Your task to perform on an android device: Go to notification settings Image 0: 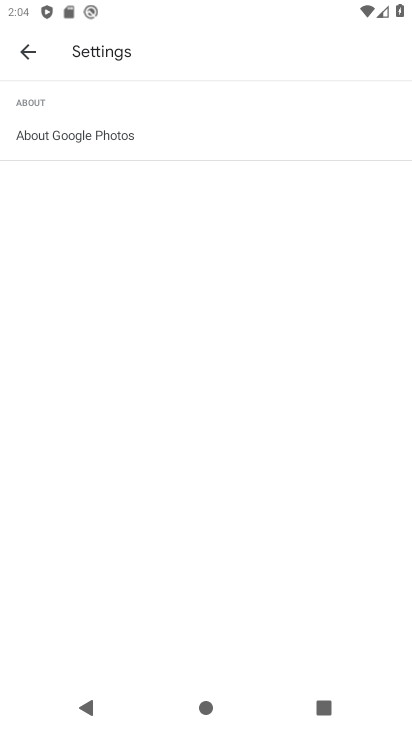
Step 0: press back button
Your task to perform on an android device: Go to notification settings Image 1: 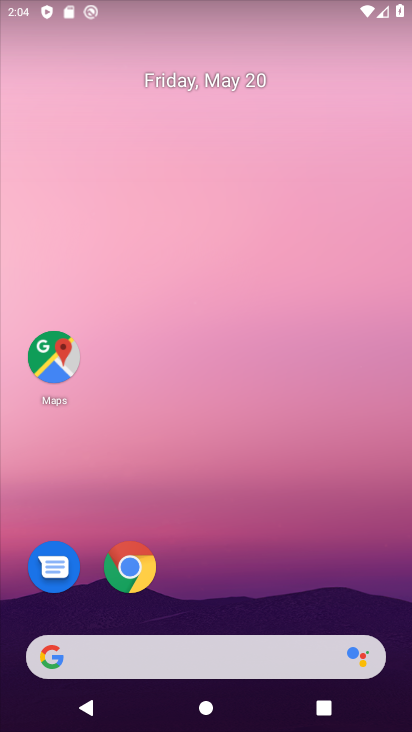
Step 1: drag from (245, 546) to (190, 52)
Your task to perform on an android device: Go to notification settings Image 2: 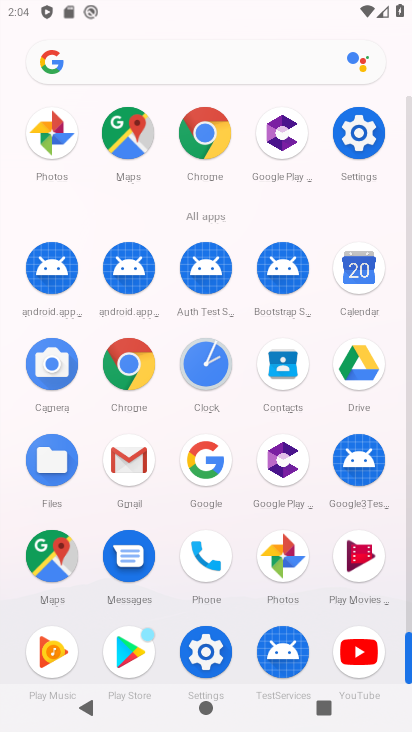
Step 2: drag from (0, 550) to (14, 358)
Your task to perform on an android device: Go to notification settings Image 3: 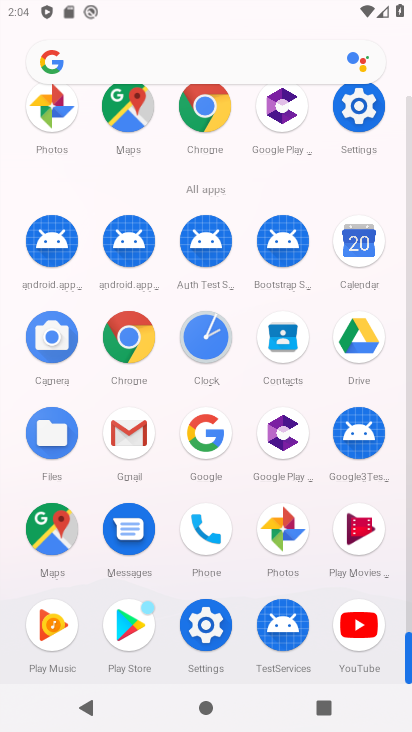
Step 3: click (207, 621)
Your task to perform on an android device: Go to notification settings Image 4: 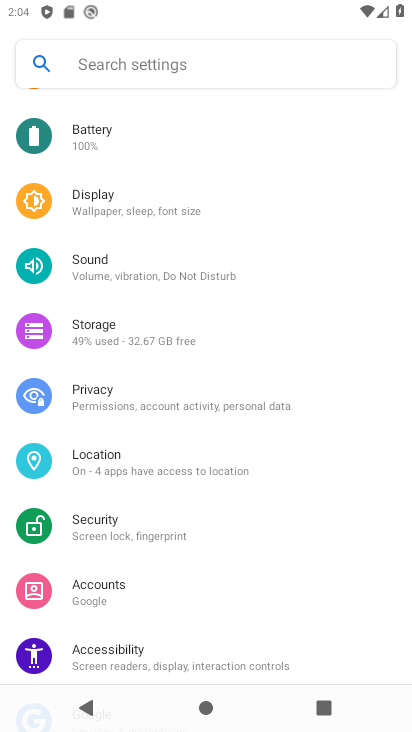
Step 4: drag from (222, 149) to (229, 544)
Your task to perform on an android device: Go to notification settings Image 5: 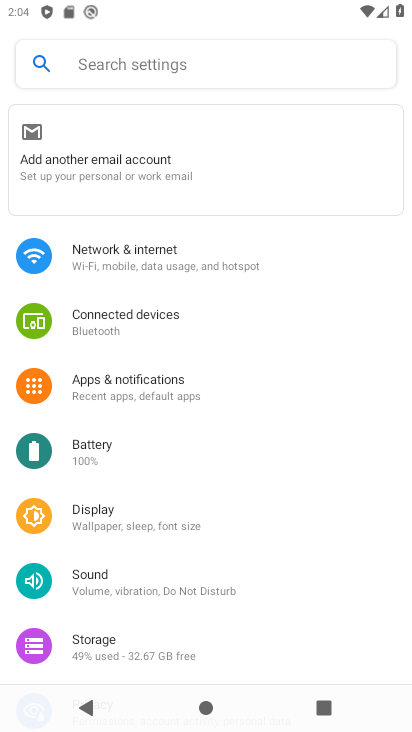
Step 5: click (149, 389)
Your task to perform on an android device: Go to notification settings Image 6: 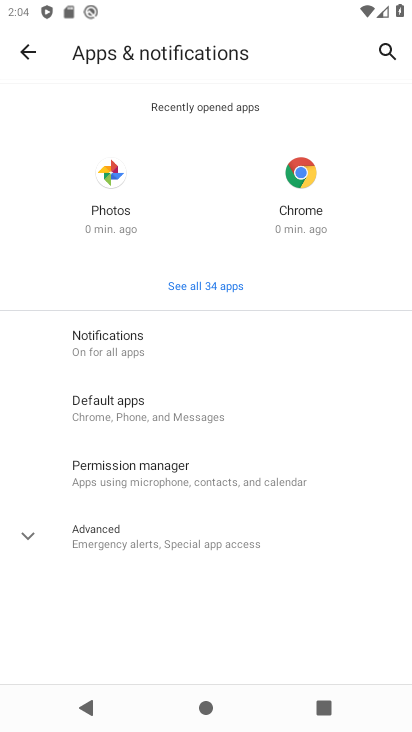
Step 6: click (34, 534)
Your task to perform on an android device: Go to notification settings Image 7: 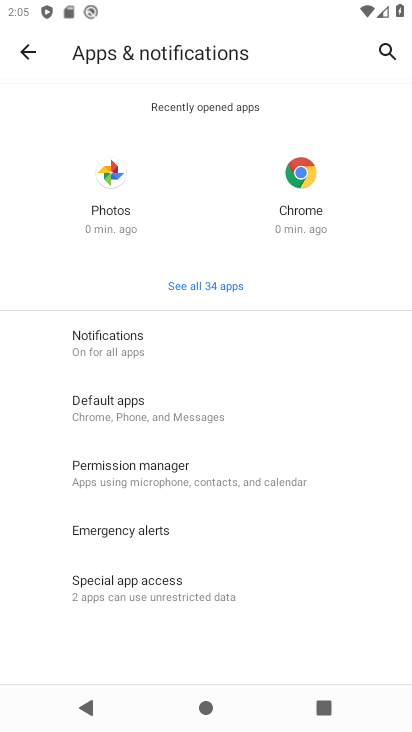
Step 7: click (142, 332)
Your task to perform on an android device: Go to notification settings Image 8: 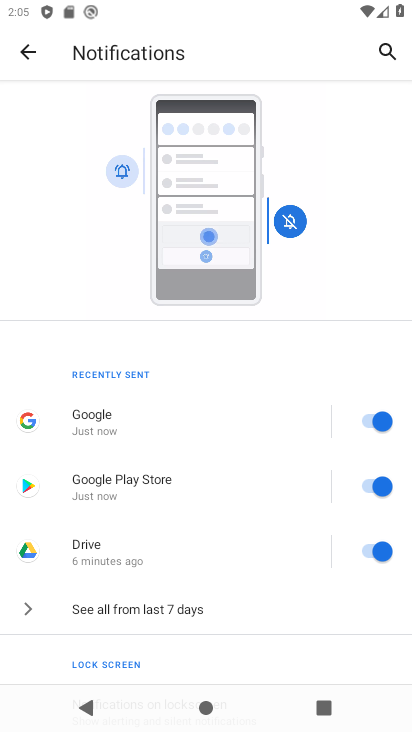
Step 8: drag from (165, 551) to (199, 115)
Your task to perform on an android device: Go to notification settings Image 9: 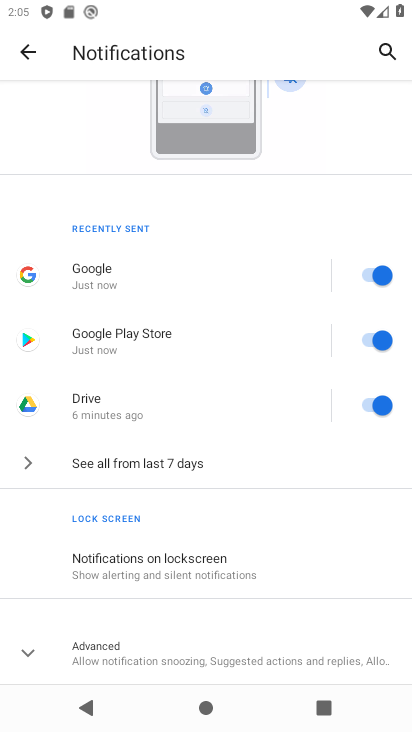
Step 9: drag from (222, 542) to (275, 137)
Your task to perform on an android device: Go to notification settings Image 10: 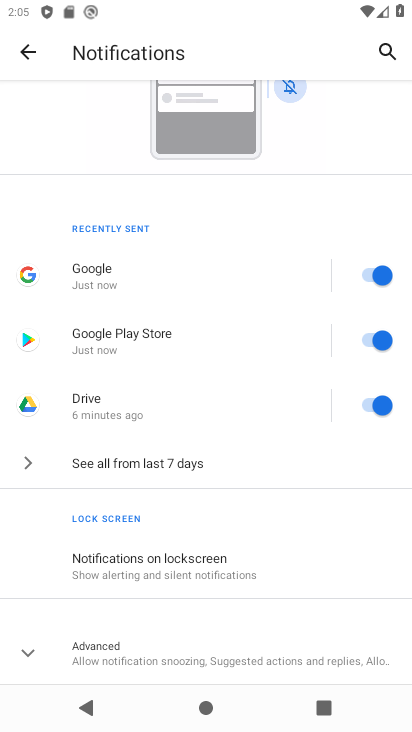
Step 10: click (27, 645)
Your task to perform on an android device: Go to notification settings Image 11: 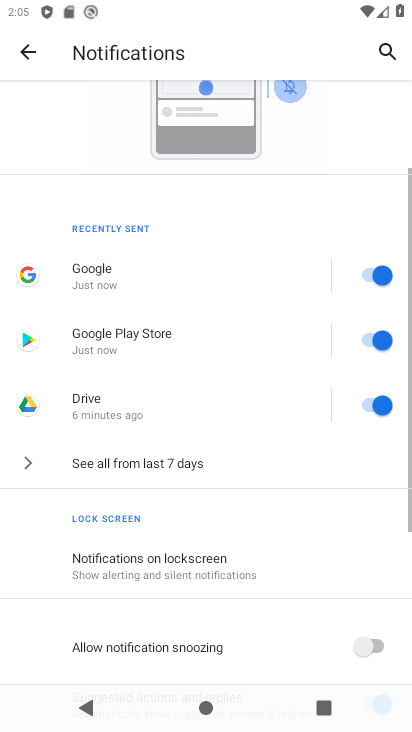
Step 11: task complete